Your task to perform on an android device: Open Google Chrome and click the shortcut for Amazon.com Image 0: 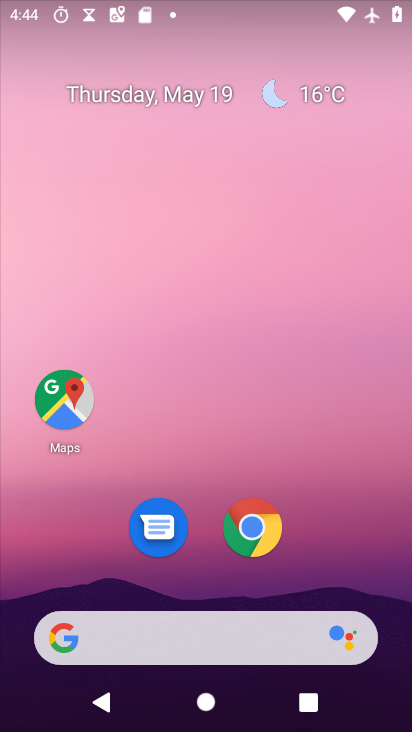
Step 0: click (265, 530)
Your task to perform on an android device: Open Google Chrome and click the shortcut for Amazon.com Image 1: 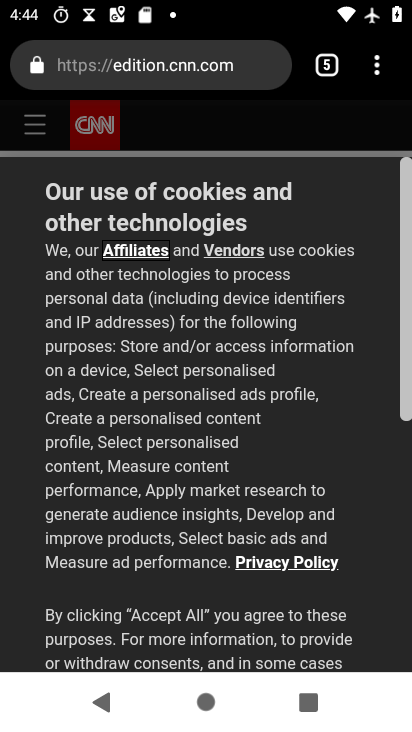
Step 1: click (325, 65)
Your task to perform on an android device: Open Google Chrome and click the shortcut for Amazon.com Image 2: 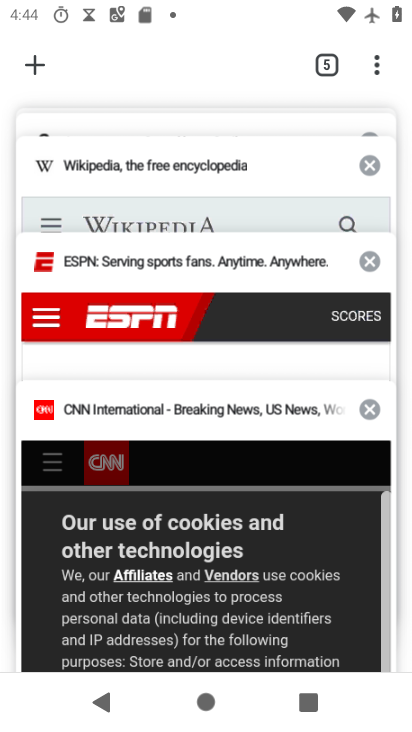
Step 2: click (31, 56)
Your task to perform on an android device: Open Google Chrome and click the shortcut for Amazon.com Image 3: 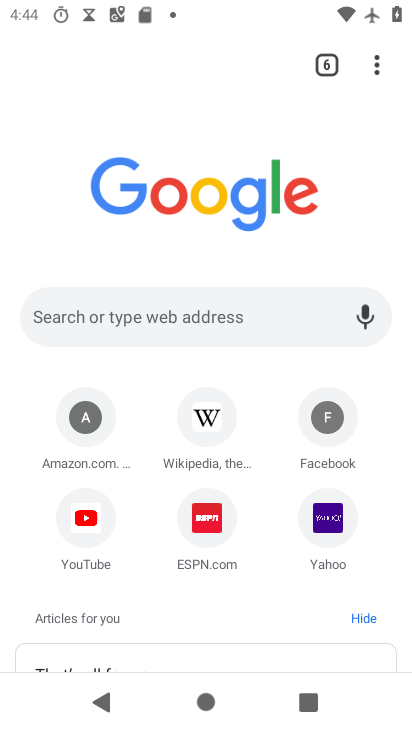
Step 3: click (323, 68)
Your task to perform on an android device: Open Google Chrome and click the shortcut for Amazon.com Image 4: 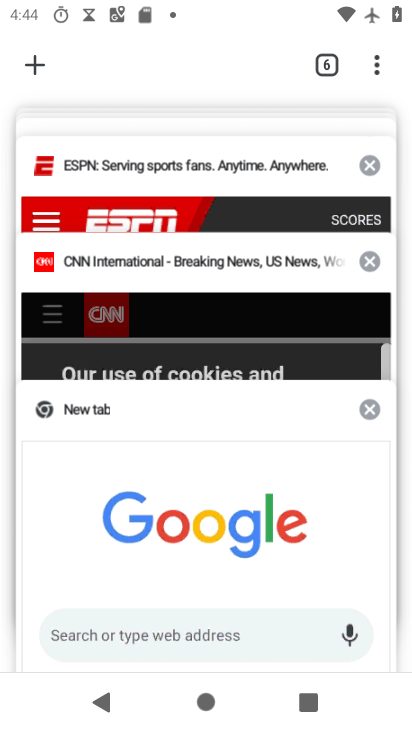
Step 4: drag from (203, 168) to (186, 635)
Your task to perform on an android device: Open Google Chrome and click the shortcut for Amazon.com Image 5: 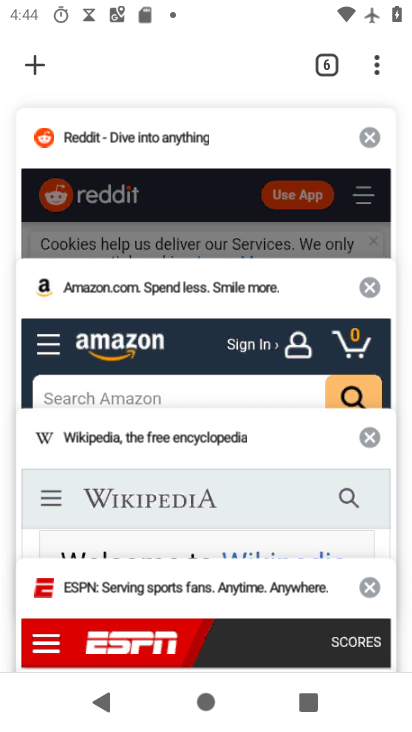
Step 5: click (117, 286)
Your task to perform on an android device: Open Google Chrome and click the shortcut for Amazon.com Image 6: 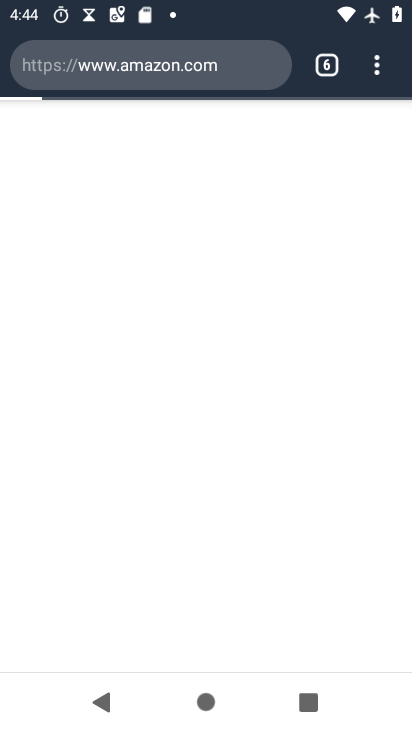
Step 6: task complete